Your task to perform on an android device: turn off smart reply in the gmail app Image 0: 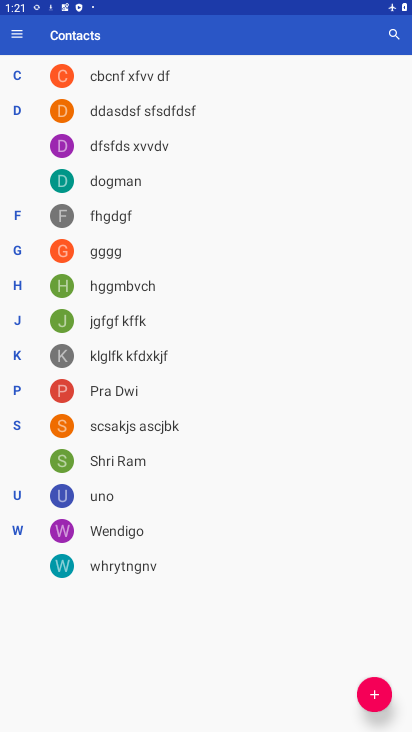
Step 0: press home button
Your task to perform on an android device: turn off smart reply in the gmail app Image 1: 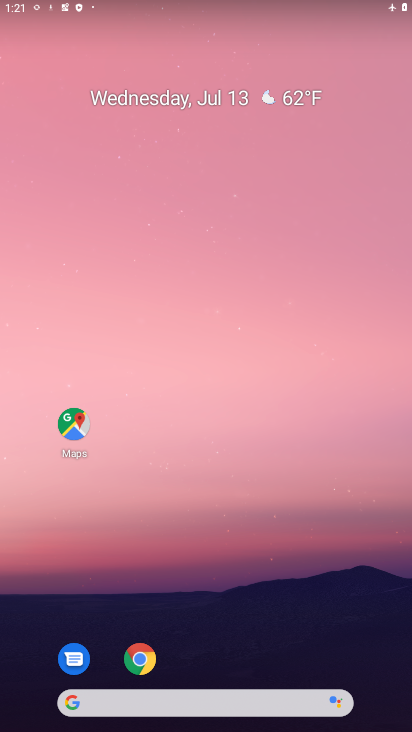
Step 1: drag from (245, 726) to (249, 118)
Your task to perform on an android device: turn off smart reply in the gmail app Image 2: 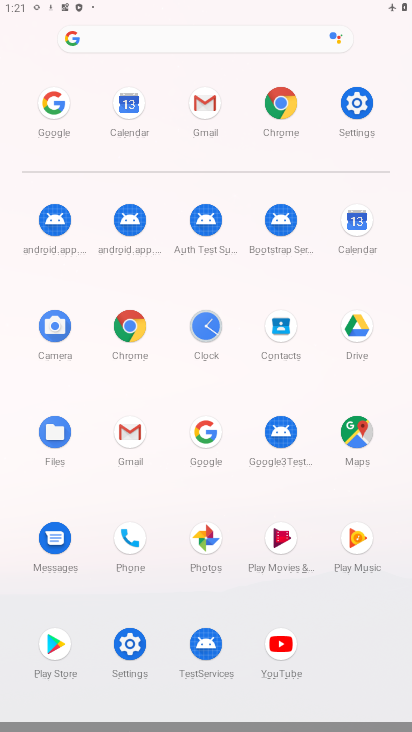
Step 2: click (123, 430)
Your task to perform on an android device: turn off smart reply in the gmail app Image 3: 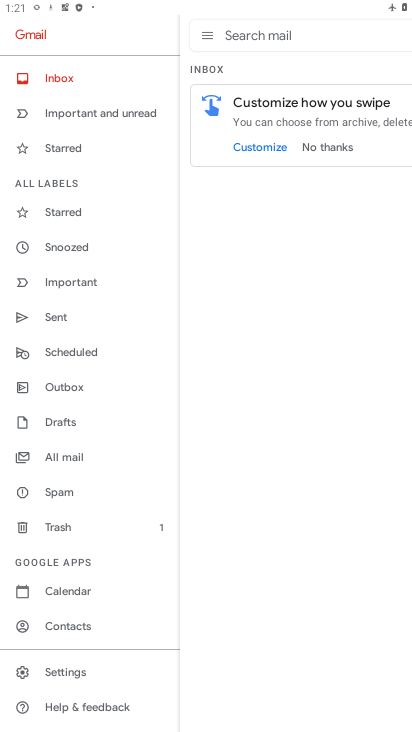
Step 3: click (66, 671)
Your task to perform on an android device: turn off smart reply in the gmail app Image 4: 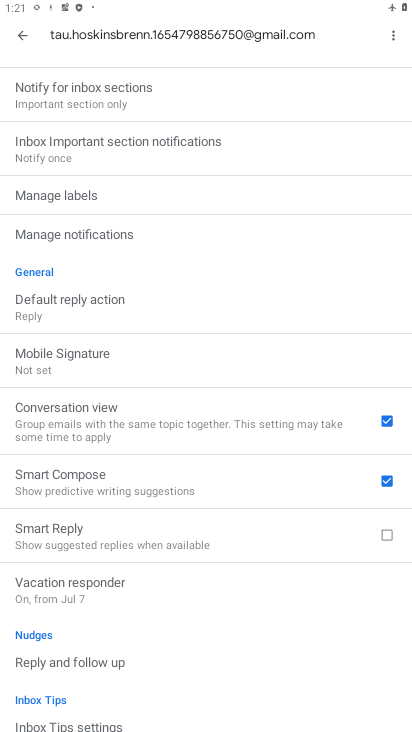
Step 4: task complete